Your task to perform on an android device: allow notifications from all sites in the chrome app Image 0: 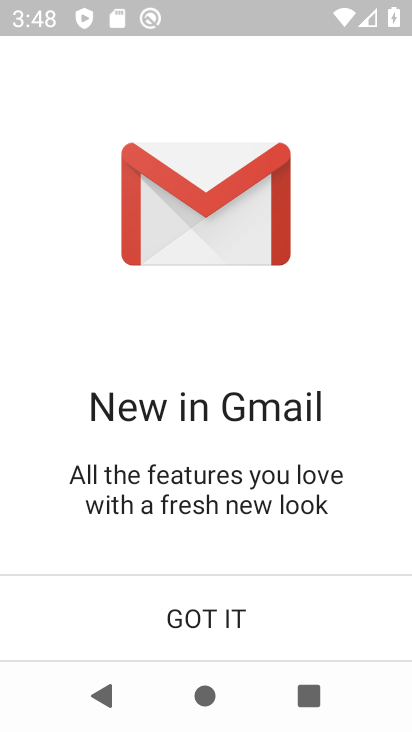
Step 0: press home button
Your task to perform on an android device: allow notifications from all sites in the chrome app Image 1: 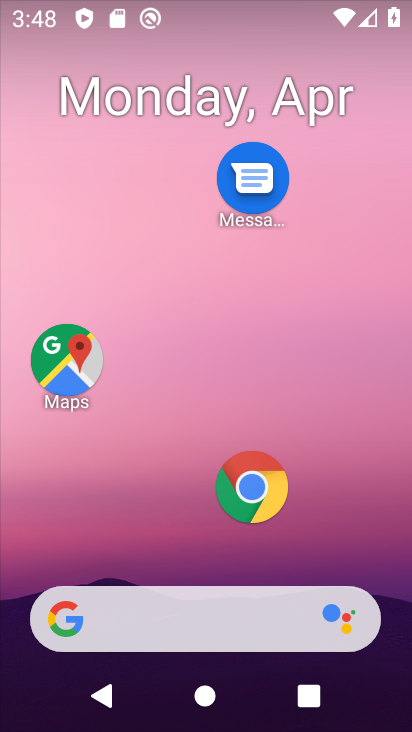
Step 1: click (256, 502)
Your task to perform on an android device: allow notifications from all sites in the chrome app Image 2: 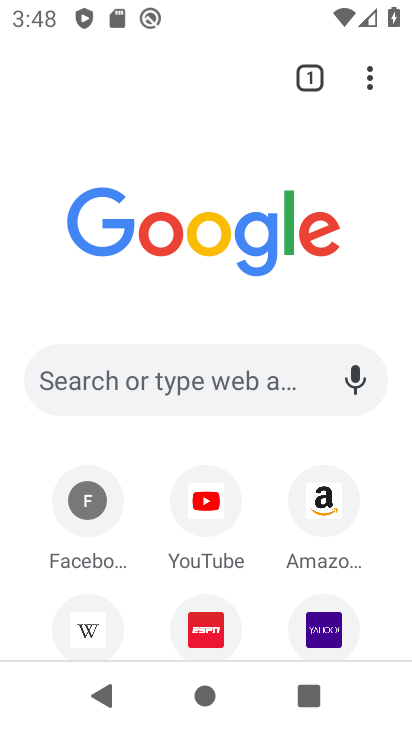
Step 2: click (366, 83)
Your task to perform on an android device: allow notifications from all sites in the chrome app Image 3: 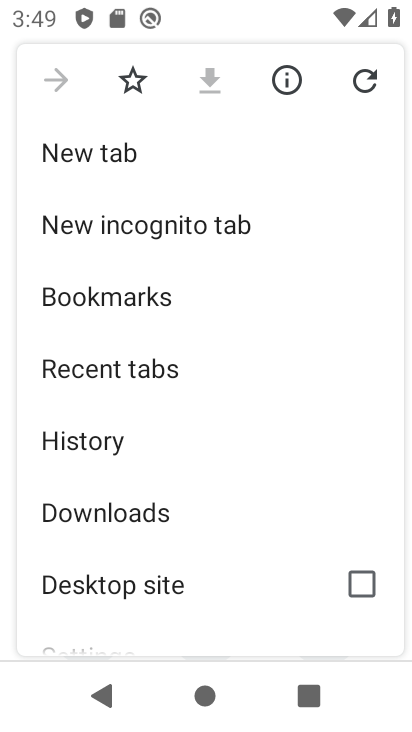
Step 3: drag from (137, 506) to (188, 287)
Your task to perform on an android device: allow notifications from all sites in the chrome app Image 4: 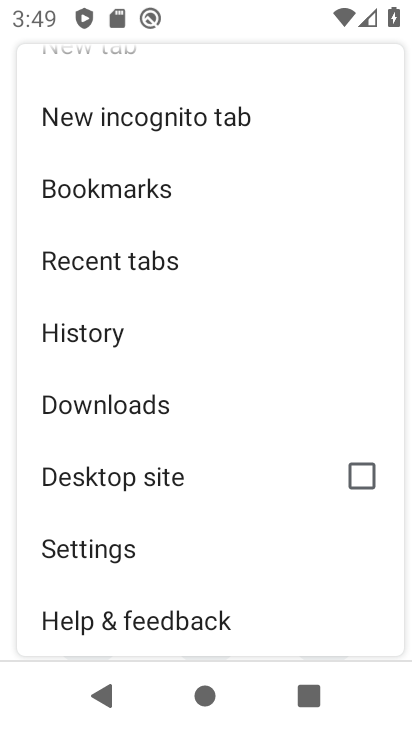
Step 4: click (124, 552)
Your task to perform on an android device: allow notifications from all sites in the chrome app Image 5: 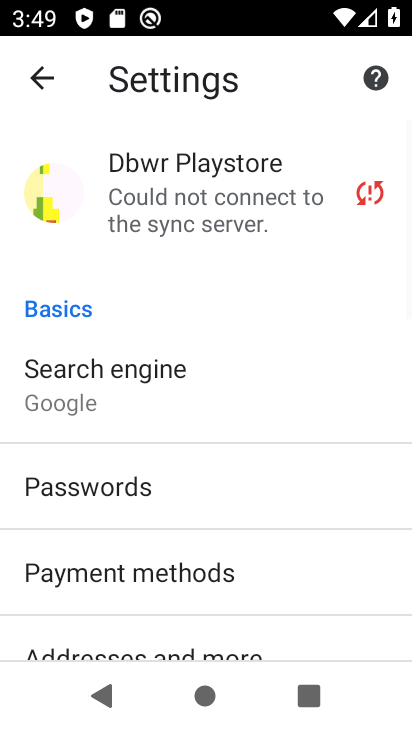
Step 5: drag from (144, 554) to (215, 259)
Your task to perform on an android device: allow notifications from all sites in the chrome app Image 6: 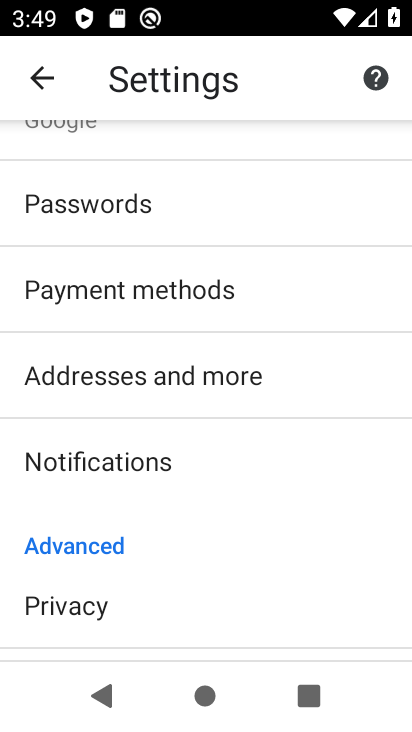
Step 6: drag from (146, 572) to (191, 238)
Your task to perform on an android device: allow notifications from all sites in the chrome app Image 7: 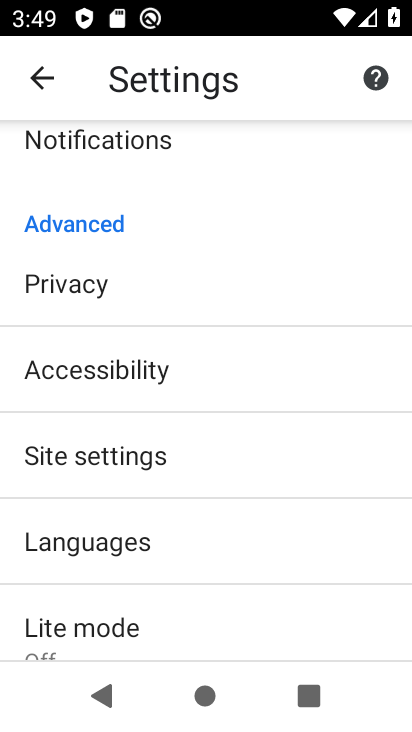
Step 7: click (105, 475)
Your task to perform on an android device: allow notifications from all sites in the chrome app Image 8: 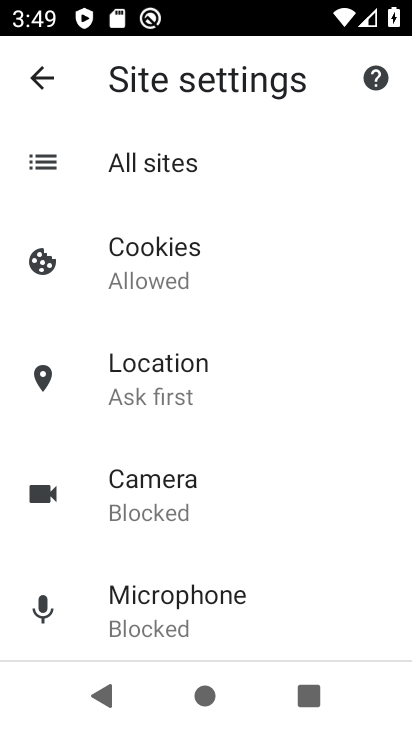
Step 8: drag from (149, 571) to (202, 186)
Your task to perform on an android device: allow notifications from all sites in the chrome app Image 9: 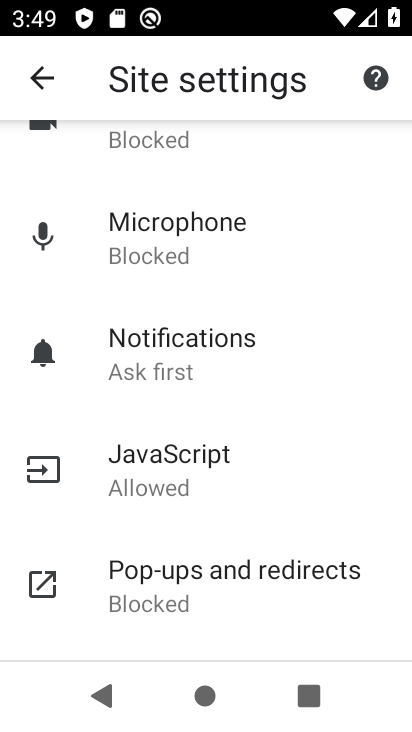
Step 9: click (148, 366)
Your task to perform on an android device: allow notifications from all sites in the chrome app Image 10: 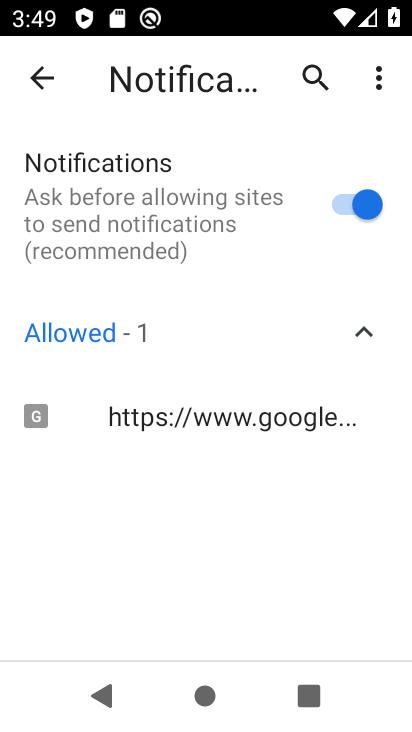
Step 10: task complete